Your task to perform on an android device: Go to CNN.com Image 0: 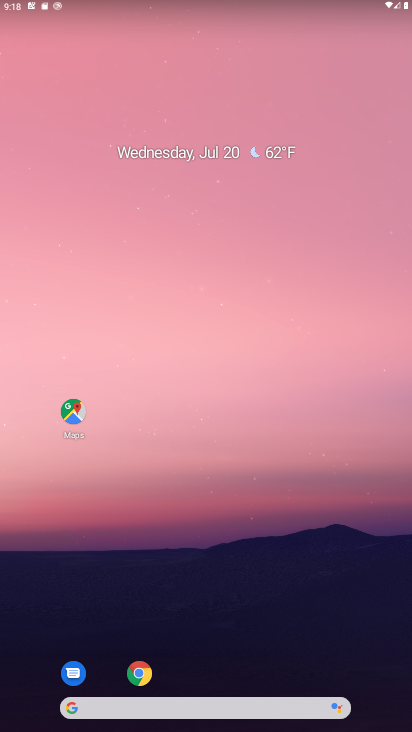
Step 0: click (143, 678)
Your task to perform on an android device: Go to CNN.com Image 1: 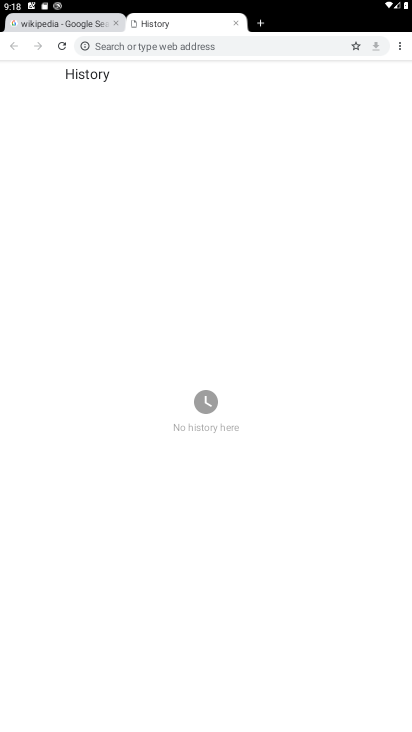
Step 1: press back button
Your task to perform on an android device: Go to CNN.com Image 2: 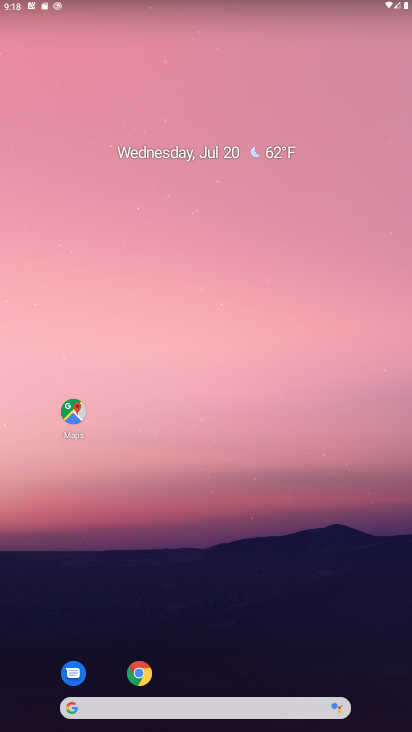
Step 2: click (135, 669)
Your task to perform on an android device: Go to CNN.com Image 3: 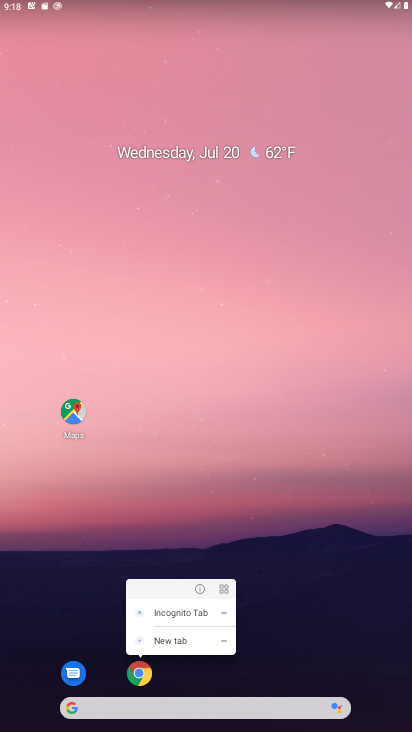
Step 3: click (135, 669)
Your task to perform on an android device: Go to CNN.com Image 4: 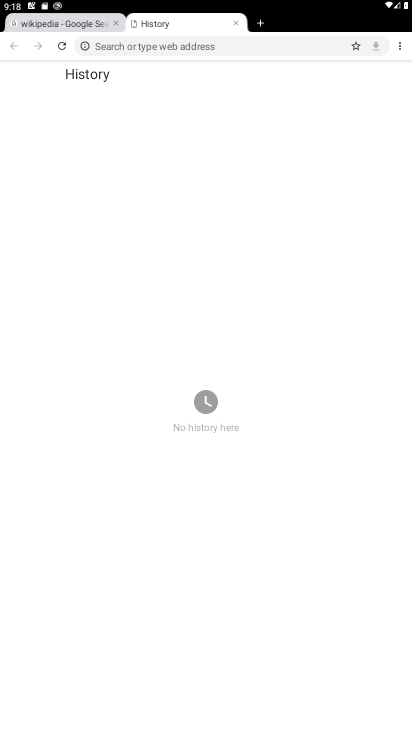
Step 4: click (192, 46)
Your task to perform on an android device: Go to CNN.com Image 5: 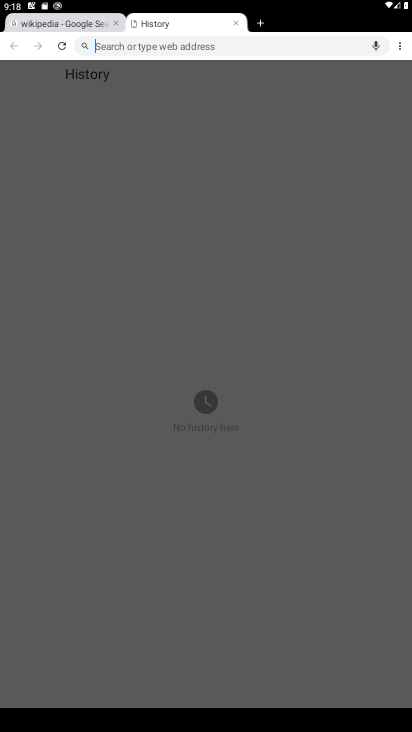
Step 5: type "CNN.com"
Your task to perform on an android device: Go to CNN.com Image 6: 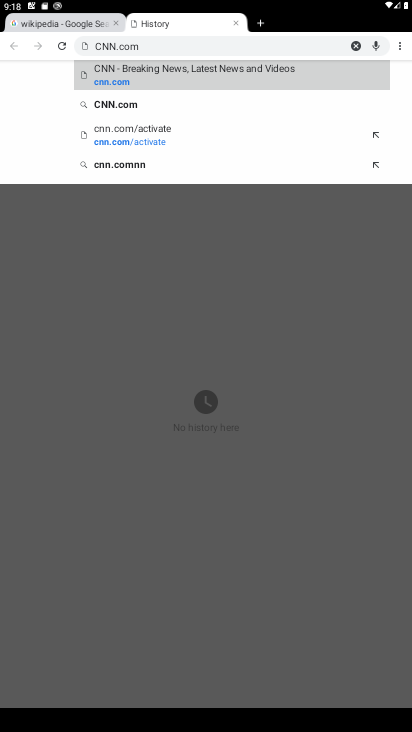
Step 6: click (117, 98)
Your task to perform on an android device: Go to CNN.com Image 7: 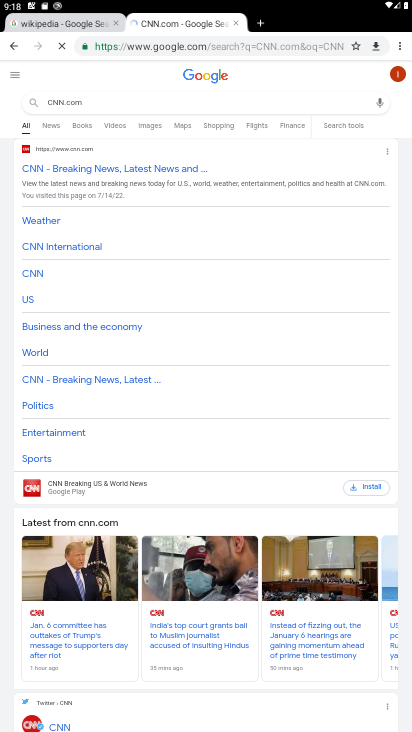
Step 7: task complete